Your task to perform on an android device: Do I have any events today? Image 0: 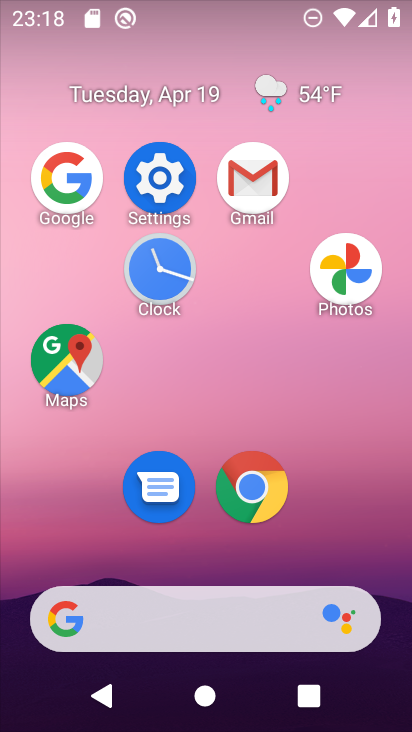
Step 0: click (236, 7)
Your task to perform on an android device: Do I have any events today? Image 1: 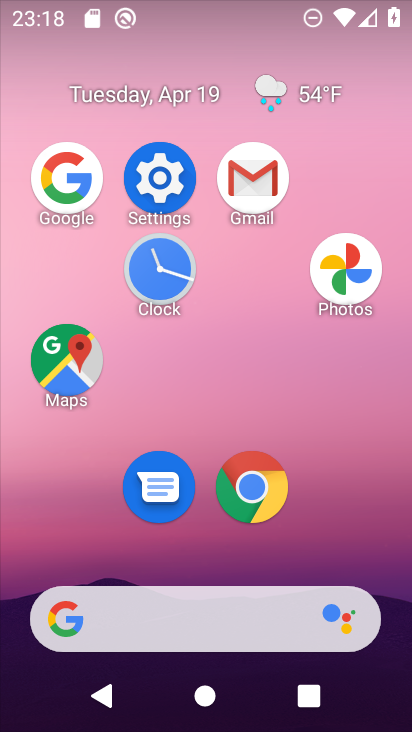
Step 1: drag from (213, 519) to (241, 97)
Your task to perform on an android device: Do I have any events today? Image 2: 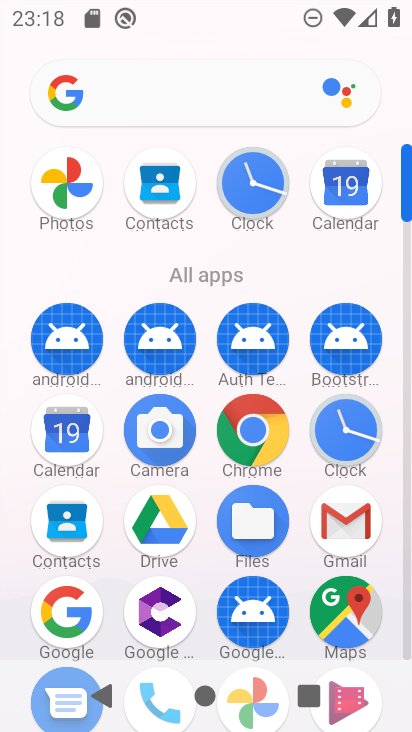
Step 2: drag from (67, 437) to (104, 295)
Your task to perform on an android device: Do I have any events today? Image 3: 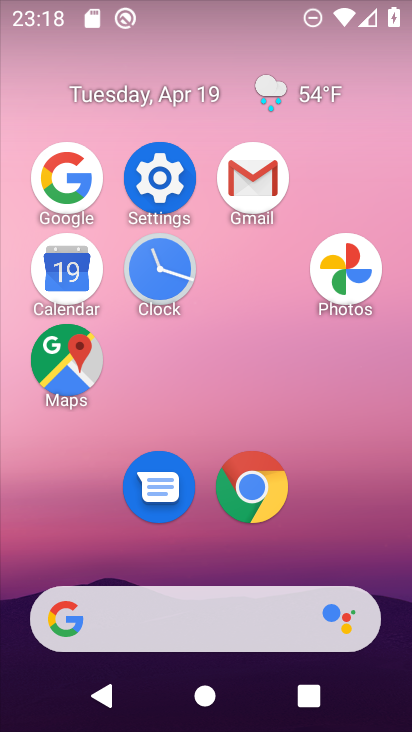
Step 3: click (76, 266)
Your task to perform on an android device: Do I have any events today? Image 4: 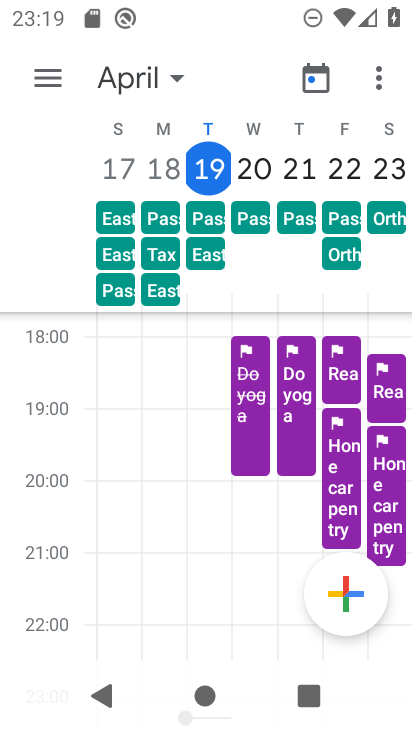
Step 4: click (208, 160)
Your task to perform on an android device: Do I have any events today? Image 5: 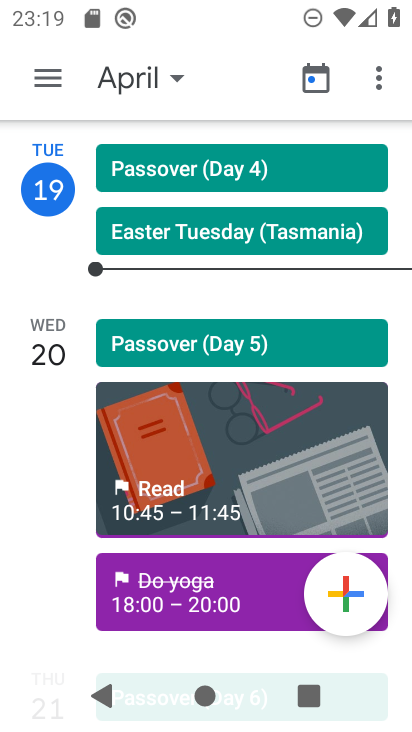
Step 5: task complete